Your task to perform on an android device: toggle data saver in the chrome app Image 0: 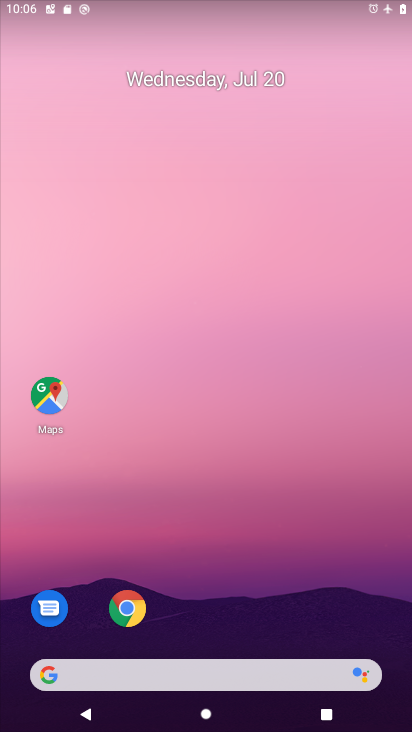
Step 0: drag from (243, 634) to (250, 315)
Your task to perform on an android device: toggle data saver in the chrome app Image 1: 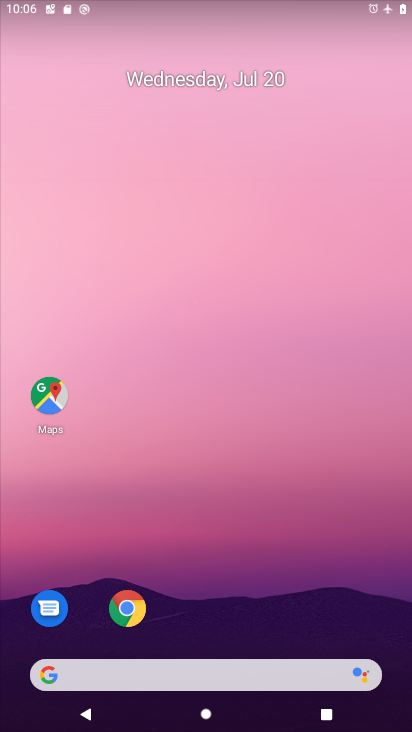
Step 1: drag from (199, 606) to (191, 227)
Your task to perform on an android device: toggle data saver in the chrome app Image 2: 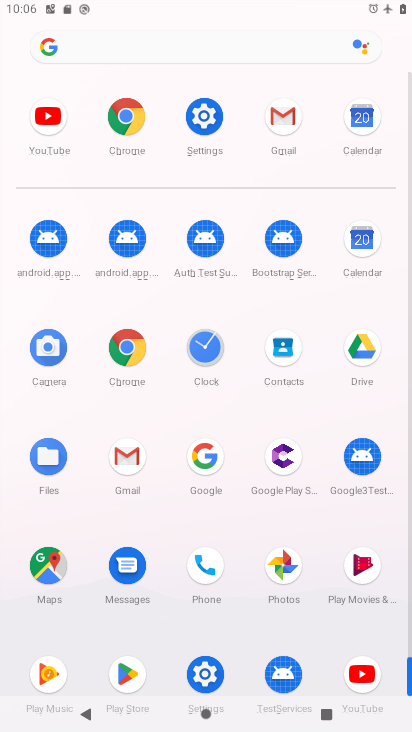
Step 2: click (136, 117)
Your task to perform on an android device: toggle data saver in the chrome app Image 3: 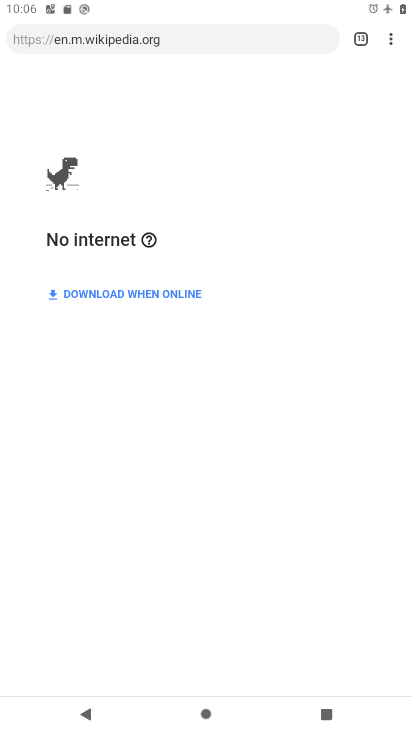
Step 3: click (401, 29)
Your task to perform on an android device: toggle data saver in the chrome app Image 4: 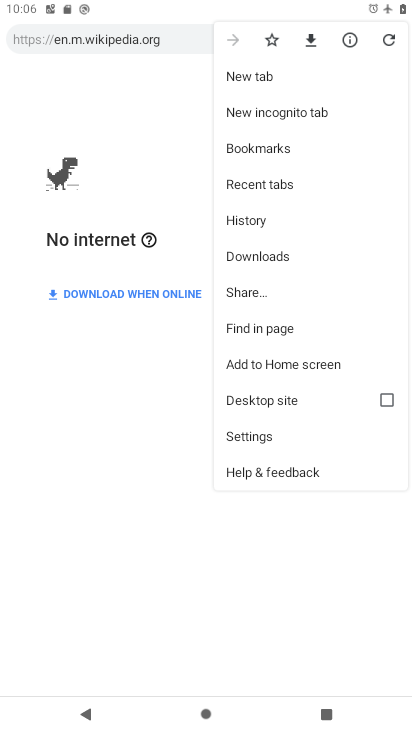
Step 4: click (276, 427)
Your task to perform on an android device: toggle data saver in the chrome app Image 5: 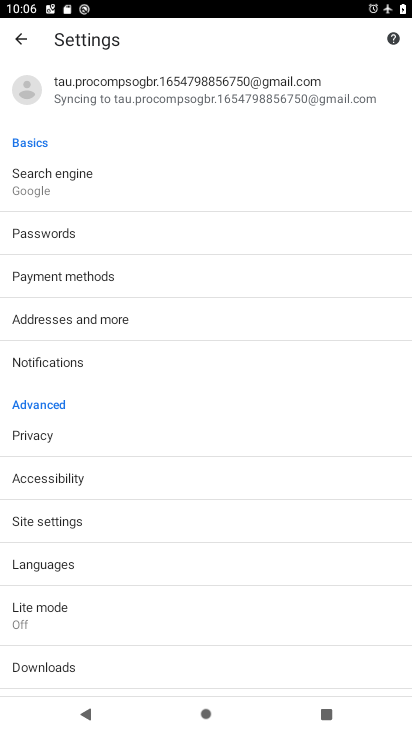
Step 5: drag from (105, 588) to (148, 172)
Your task to perform on an android device: toggle data saver in the chrome app Image 6: 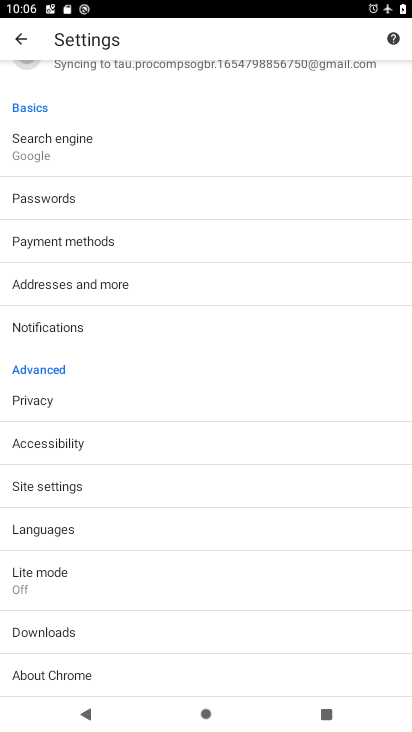
Step 6: click (101, 576)
Your task to perform on an android device: toggle data saver in the chrome app Image 7: 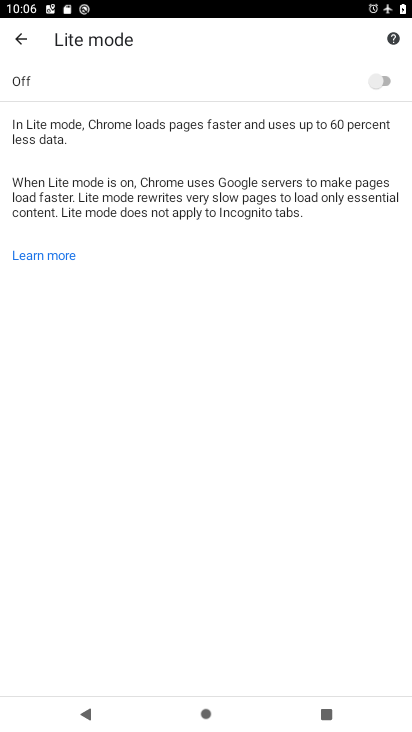
Step 7: click (374, 87)
Your task to perform on an android device: toggle data saver in the chrome app Image 8: 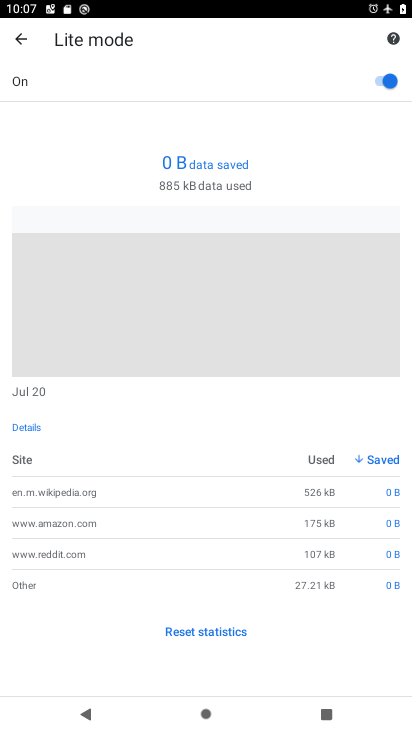
Step 8: task complete